Your task to perform on an android device: change the clock display to show seconds Image 0: 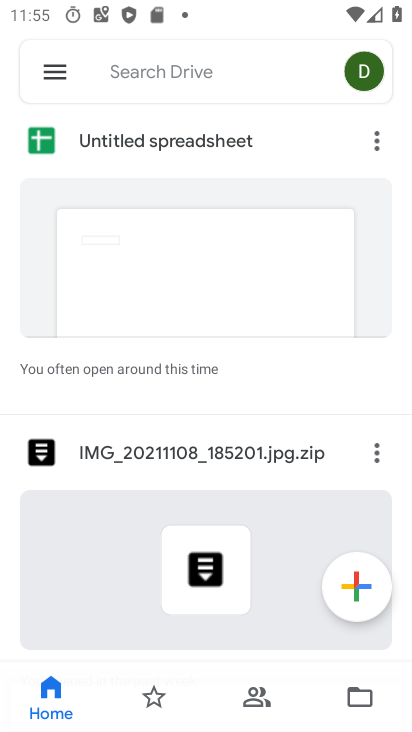
Step 0: press home button
Your task to perform on an android device: change the clock display to show seconds Image 1: 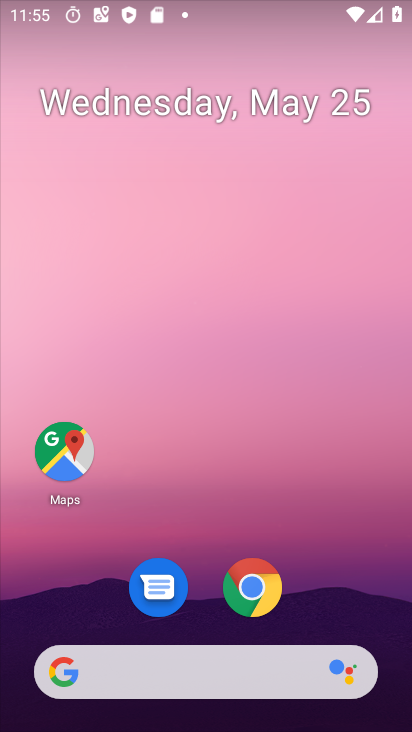
Step 1: drag from (235, 699) to (226, 127)
Your task to perform on an android device: change the clock display to show seconds Image 2: 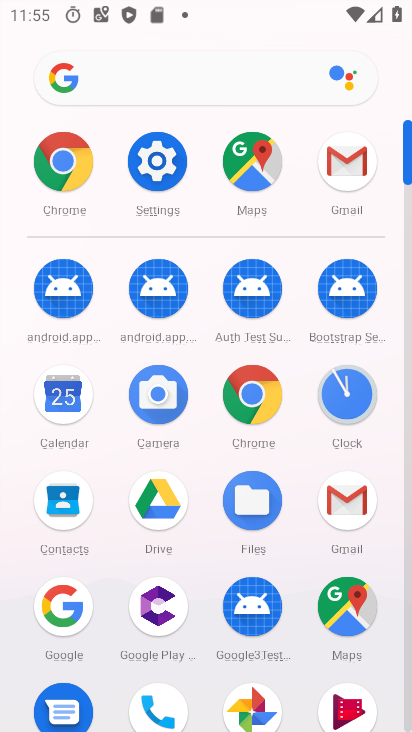
Step 2: click (361, 415)
Your task to perform on an android device: change the clock display to show seconds Image 3: 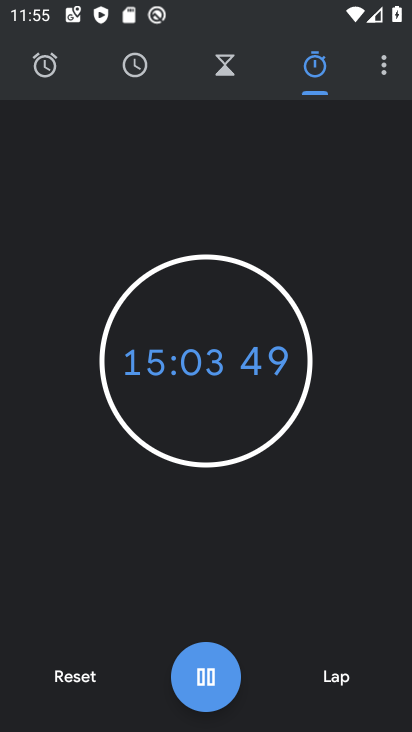
Step 3: click (394, 75)
Your task to perform on an android device: change the clock display to show seconds Image 4: 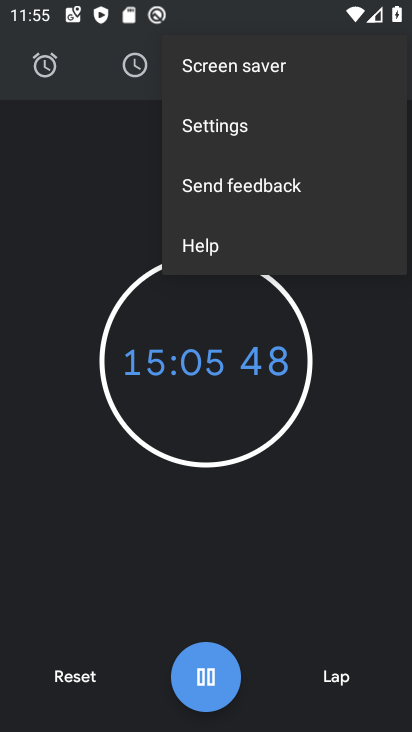
Step 4: click (254, 131)
Your task to perform on an android device: change the clock display to show seconds Image 5: 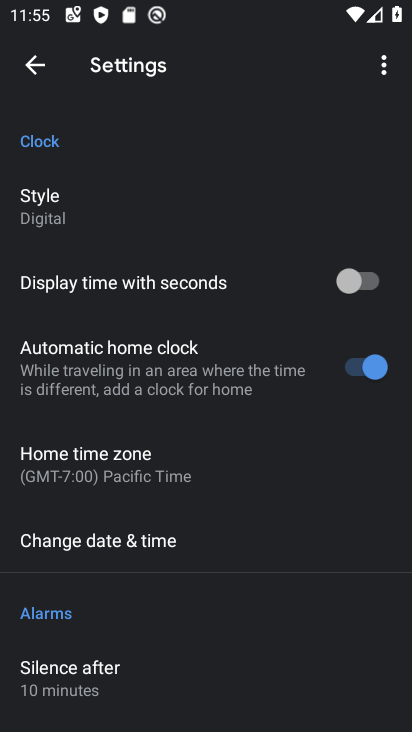
Step 5: click (353, 279)
Your task to perform on an android device: change the clock display to show seconds Image 6: 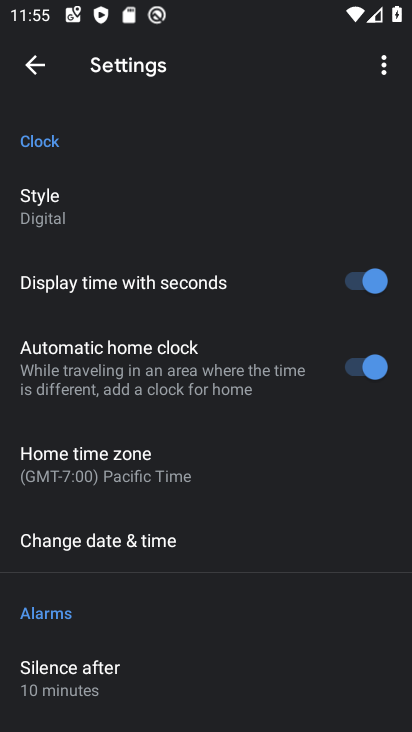
Step 6: task complete